Your task to perform on an android device: add a label to a message in the gmail app Image 0: 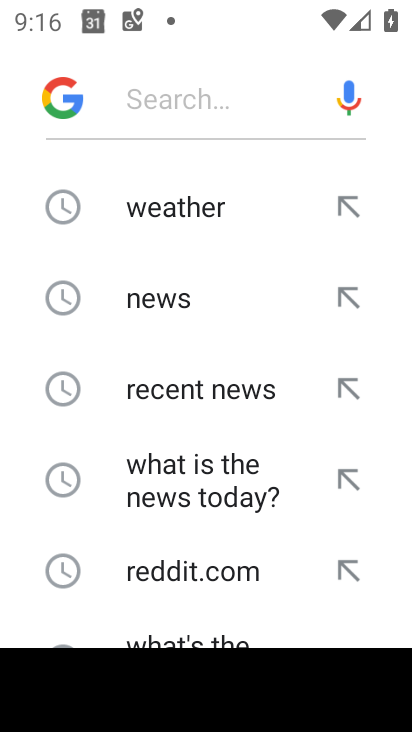
Step 0: press back button
Your task to perform on an android device: add a label to a message in the gmail app Image 1: 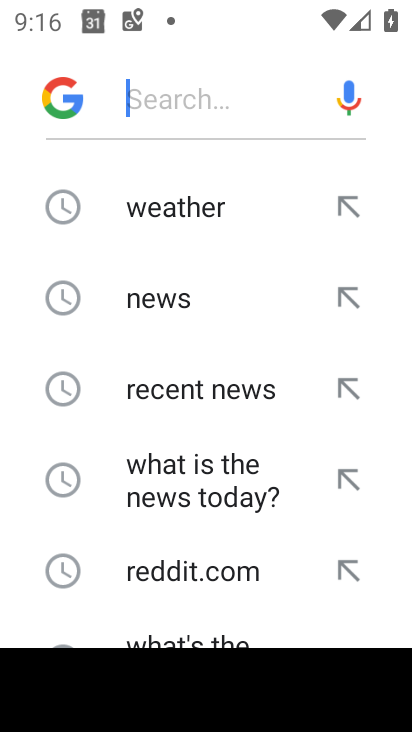
Step 1: press back button
Your task to perform on an android device: add a label to a message in the gmail app Image 2: 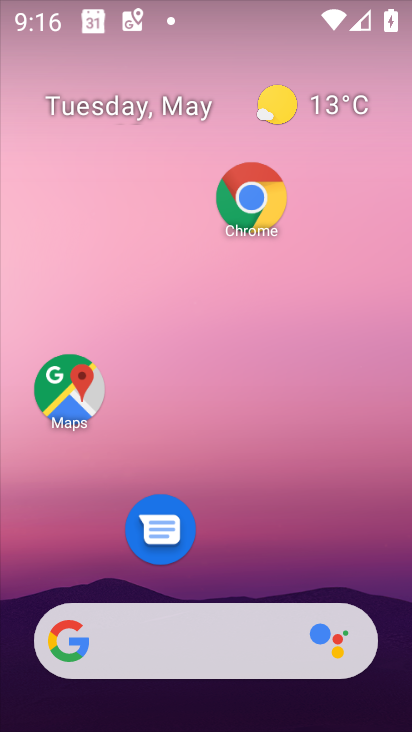
Step 2: drag from (258, 530) to (302, 189)
Your task to perform on an android device: add a label to a message in the gmail app Image 3: 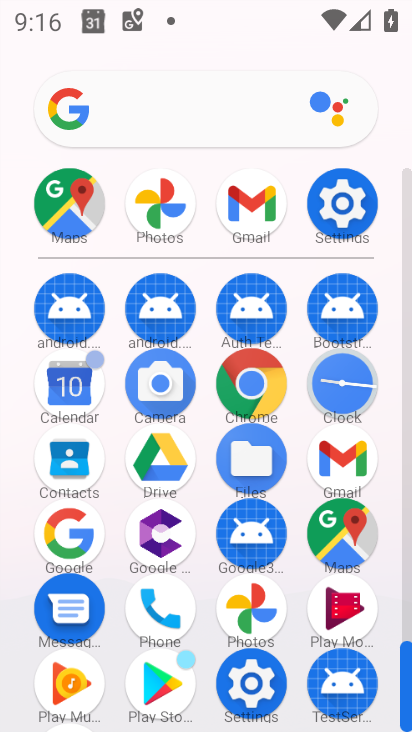
Step 3: click (258, 217)
Your task to perform on an android device: add a label to a message in the gmail app Image 4: 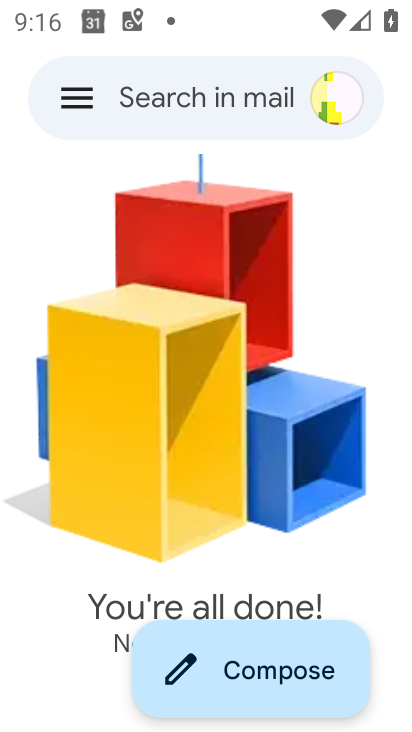
Step 4: task complete